Your task to perform on an android device: turn on showing notifications on the lock screen Image 0: 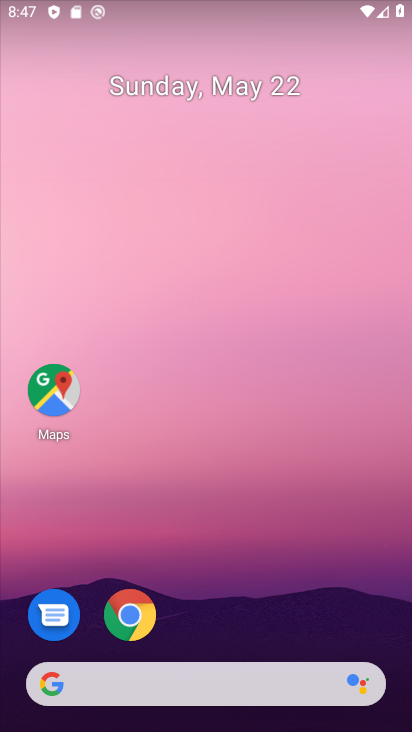
Step 0: drag from (266, 559) to (264, 259)
Your task to perform on an android device: turn on showing notifications on the lock screen Image 1: 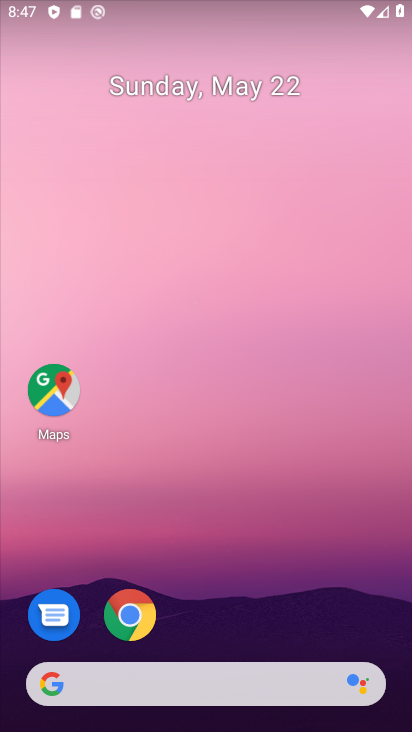
Step 1: drag from (250, 608) to (252, 309)
Your task to perform on an android device: turn on showing notifications on the lock screen Image 2: 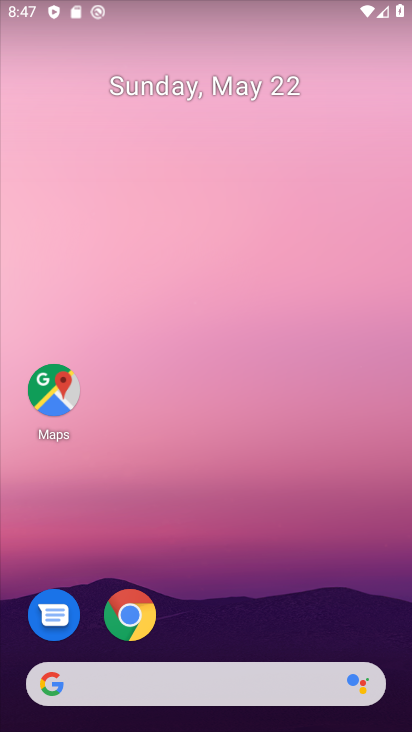
Step 2: drag from (244, 612) to (253, 196)
Your task to perform on an android device: turn on showing notifications on the lock screen Image 3: 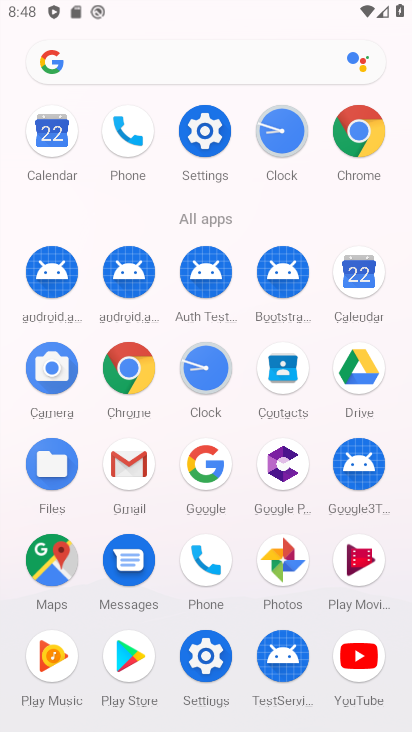
Step 3: click (200, 652)
Your task to perform on an android device: turn on showing notifications on the lock screen Image 4: 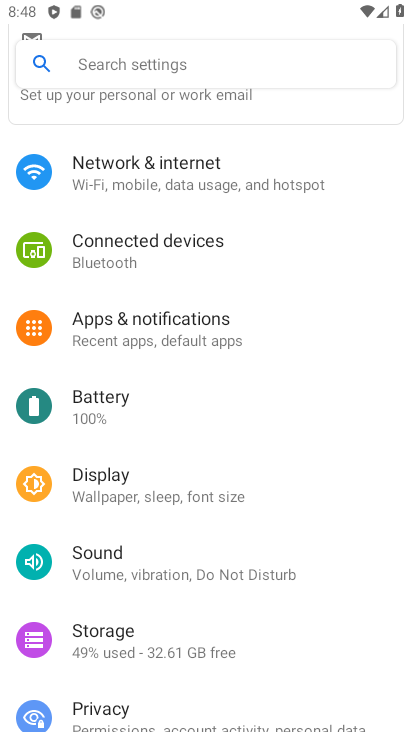
Step 4: click (176, 323)
Your task to perform on an android device: turn on showing notifications on the lock screen Image 5: 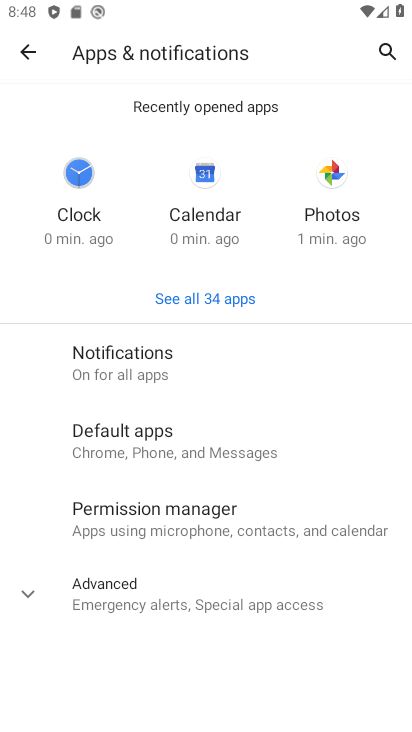
Step 5: click (166, 355)
Your task to perform on an android device: turn on showing notifications on the lock screen Image 6: 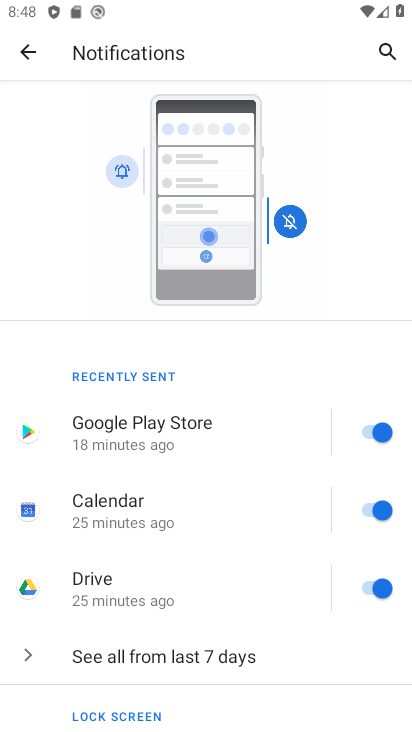
Step 6: drag from (228, 559) to (270, 214)
Your task to perform on an android device: turn on showing notifications on the lock screen Image 7: 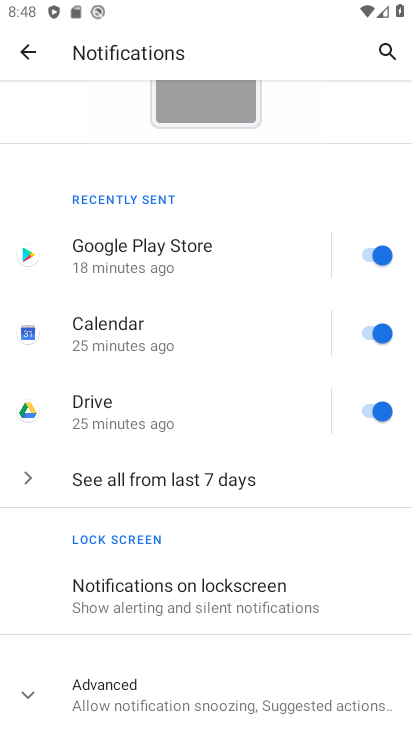
Step 7: click (200, 596)
Your task to perform on an android device: turn on showing notifications on the lock screen Image 8: 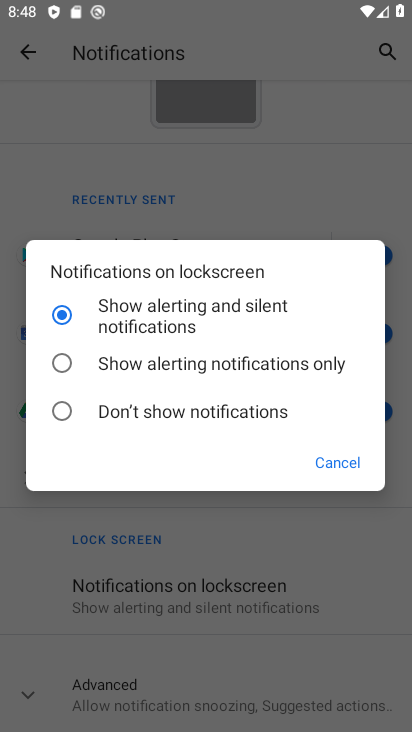
Step 8: click (171, 363)
Your task to perform on an android device: turn on showing notifications on the lock screen Image 9: 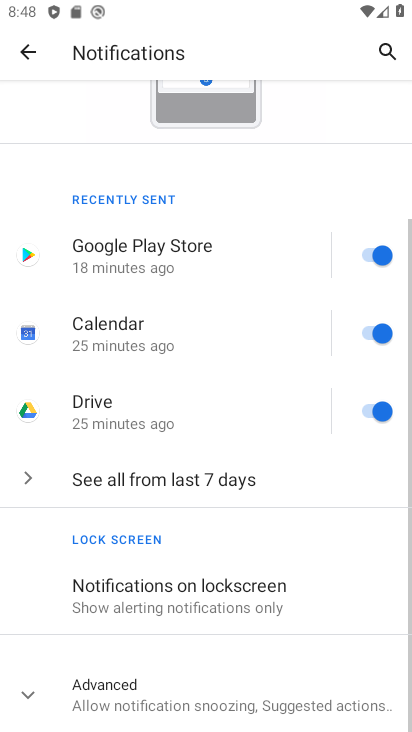
Step 9: task complete